Your task to perform on an android device: allow cookies in the chrome app Image 0: 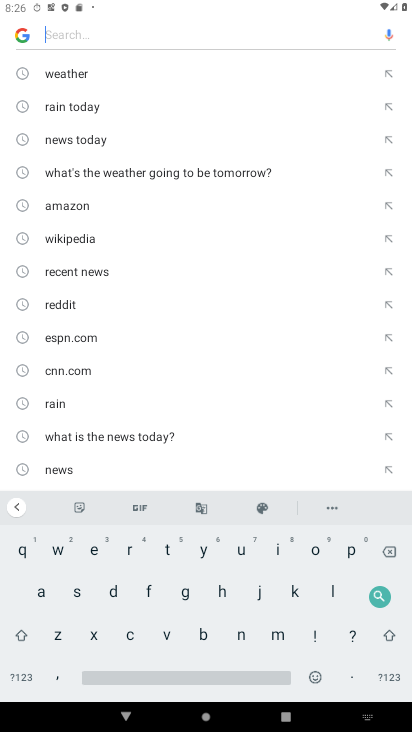
Step 0: press home button
Your task to perform on an android device: allow cookies in the chrome app Image 1: 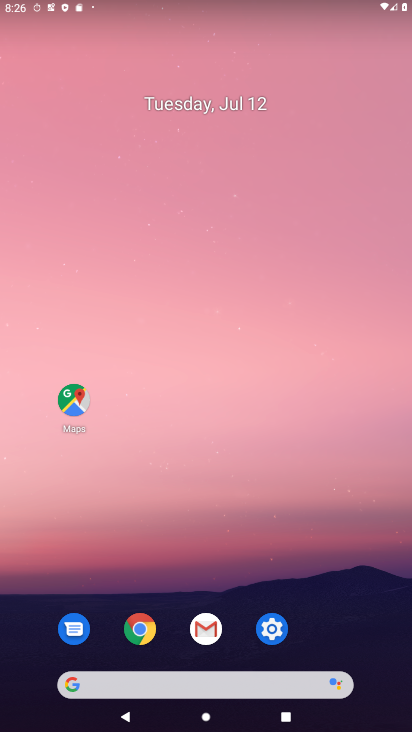
Step 1: click (151, 632)
Your task to perform on an android device: allow cookies in the chrome app Image 2: 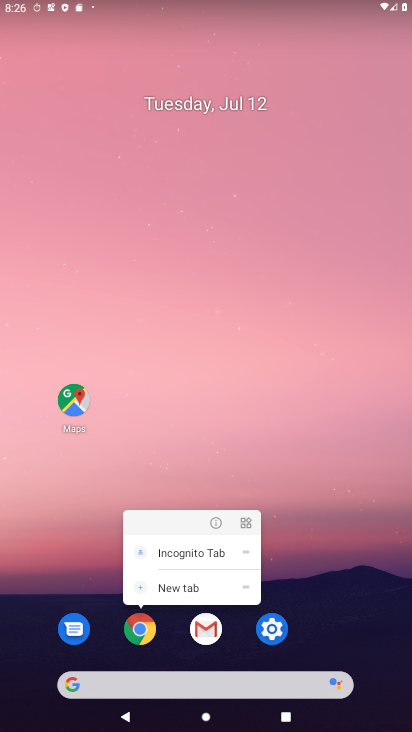
Step 2: click (140, 640)
Your task to perform on an android device: allow cookies in the chrome app Image 3: 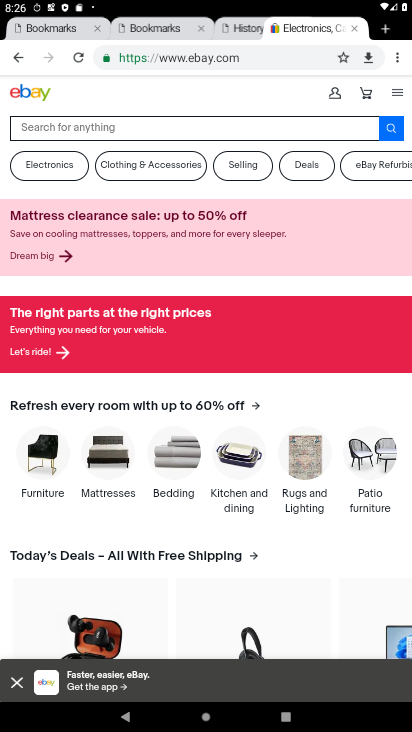
Step 3: click (393, 68)
Your task to perform on an android device: allow cookies in the chrome app Image 4: 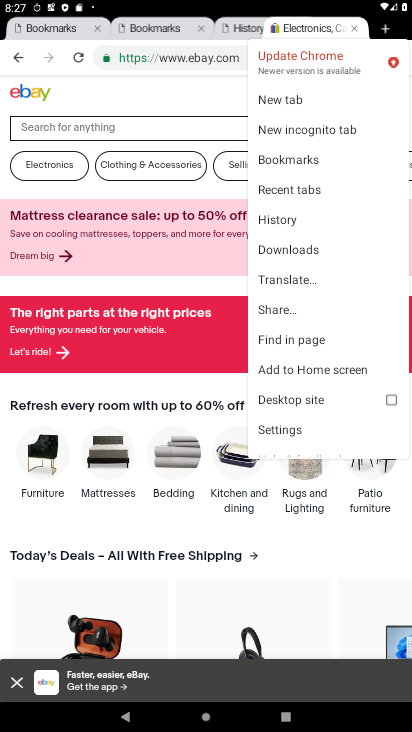
Step 4: click (270, 424)
Your task to perform on an android device: allow cookies in the chrome app Image 5: 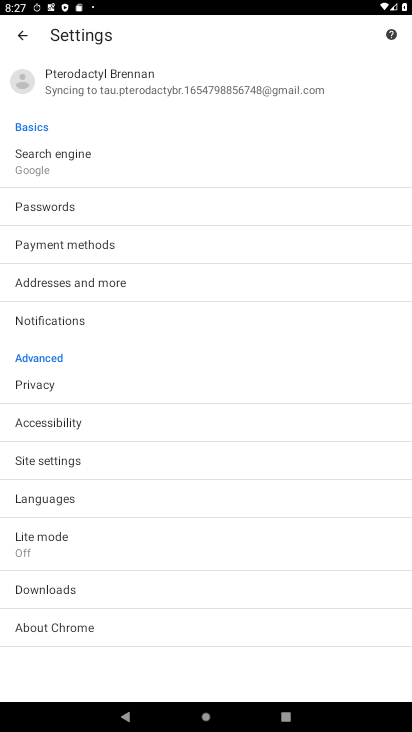
Step 5: click (57, 460)
Your task to perform on an android device: allow cookies in the chrome app Image 6: 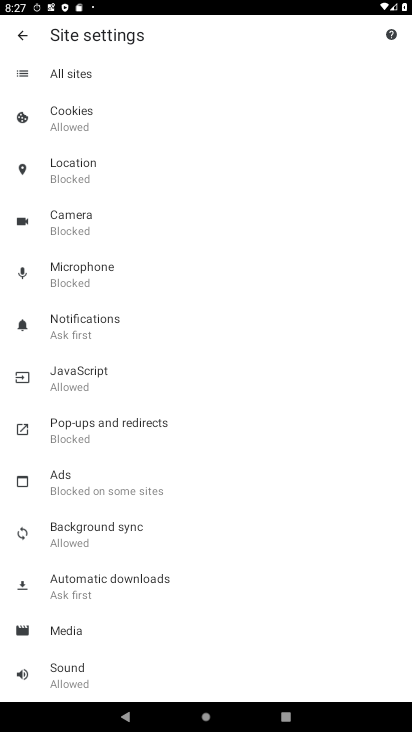
Step 6: click (98, 117)
Your task to perform on an android device: allow cookies in the chrome app Image 7: 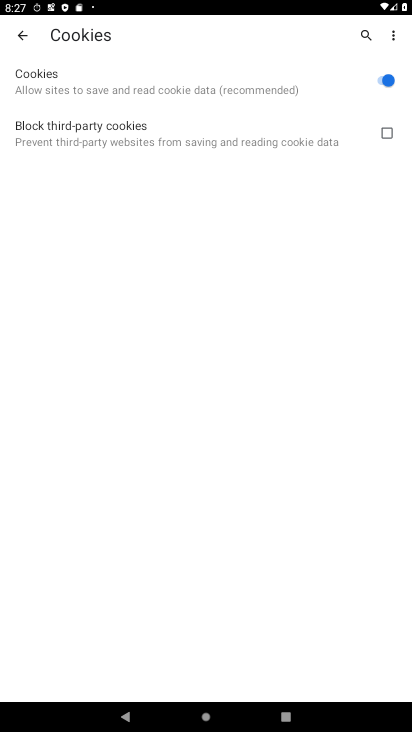
Step 7: click (378, 77)
Your task to perform on an android device: allow cookies in the chrome app Image 8: 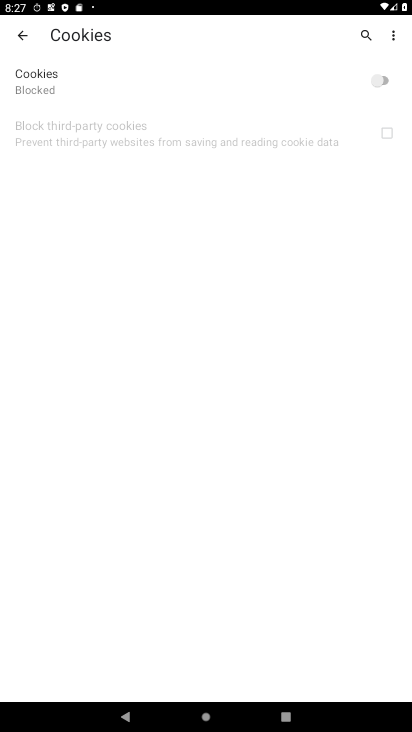
Step 8: click (378, 77)
Your task to perform on an android device: allow cookies in the chrome app Image 9: 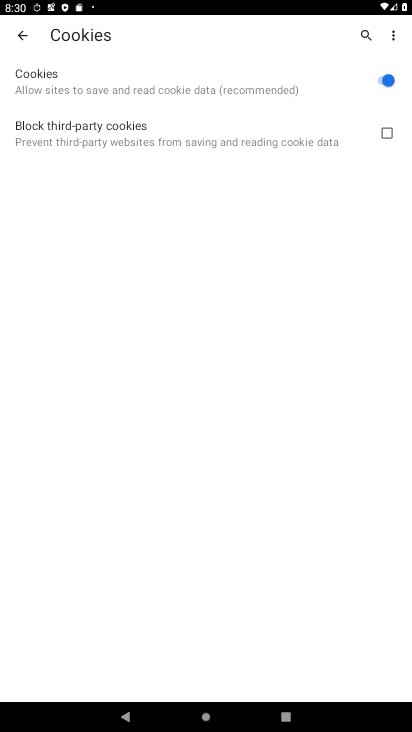
Step 9: task complete